Your task to perform on an android device: show emergency info Image 0: 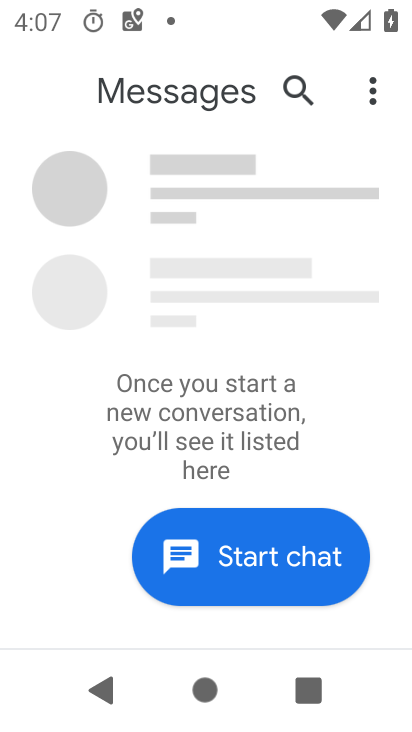
Step 0: press home button
Your task to perform on an android device: show emergency info Image 1: 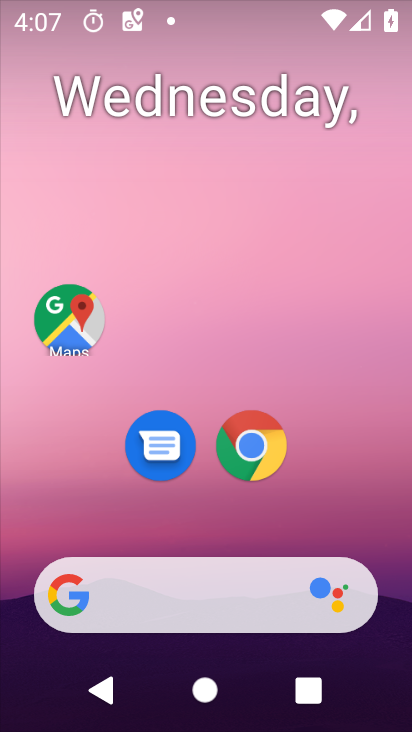
Step 1: drag from (226, 540) to (230, 115)
Your task to perform on an android device: show emergency info Image 2: 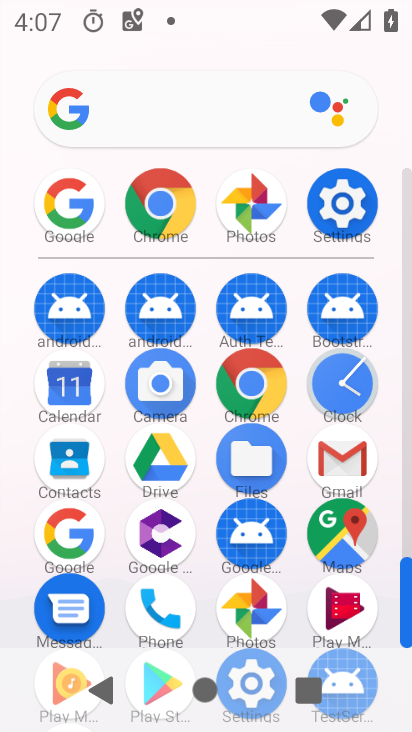
Step 2: click (347, 201)
Your task to perform on an android device: show emergency info Image 3: 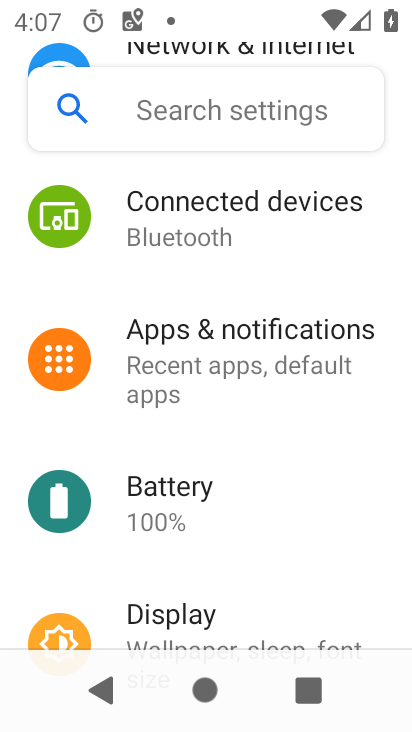
Step 3: drag from (237, 577) to (310, 129)
Your task to perform on an android device: show emergency info Image 4: 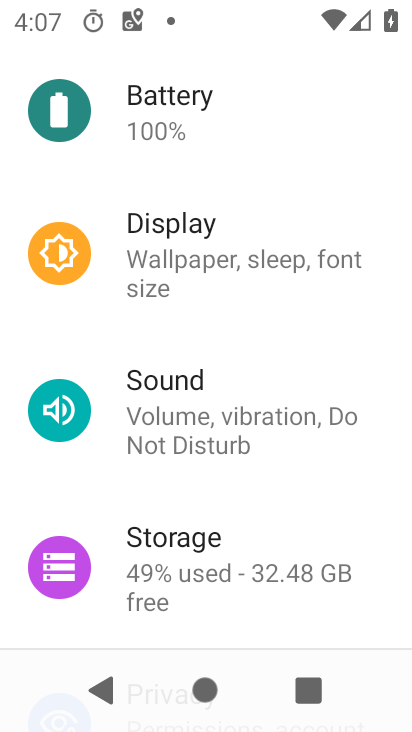
Step 4: drag from (197, 548) to (277, 41)
Your task to perform on an android device: show emergency info Image 5: 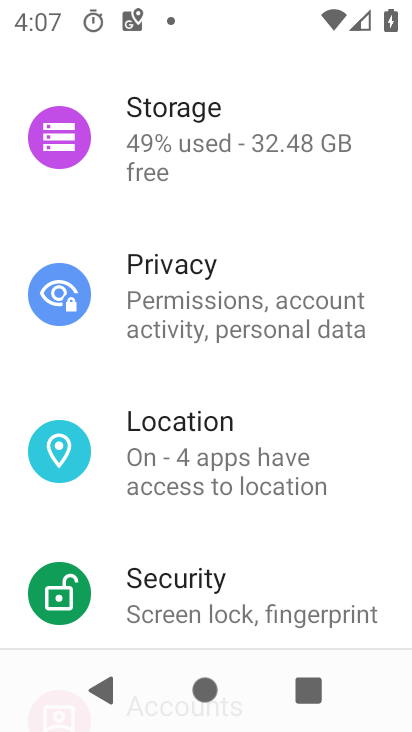
Step 5: drag from (204, 544) to (246, 69)
Your task to perform on an android device: show emergency info Image 6: 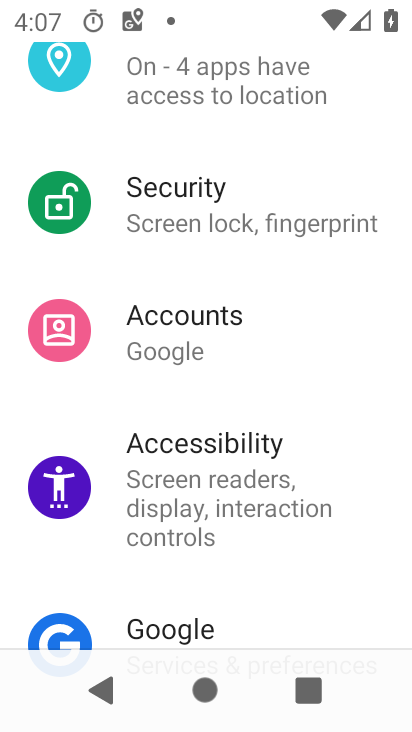
Step 6: drag from (219, 574) to (231, 131)
Your task to perform on an android device: show emergency info Image 7: 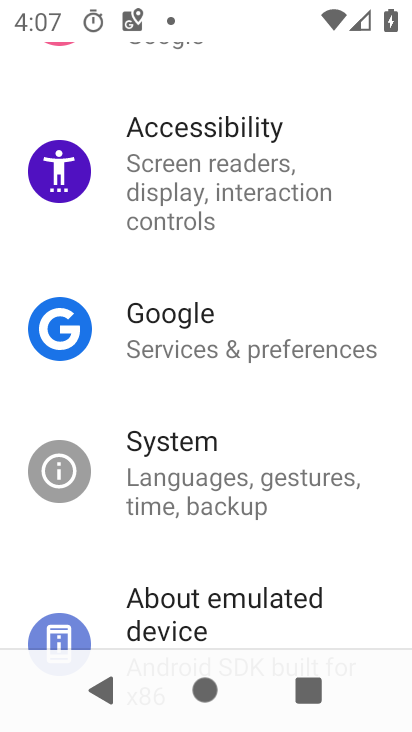
Step 7: drag from (172, 578) to (203, 256)
Your task to perform on an android device: show emergency info Image 8: 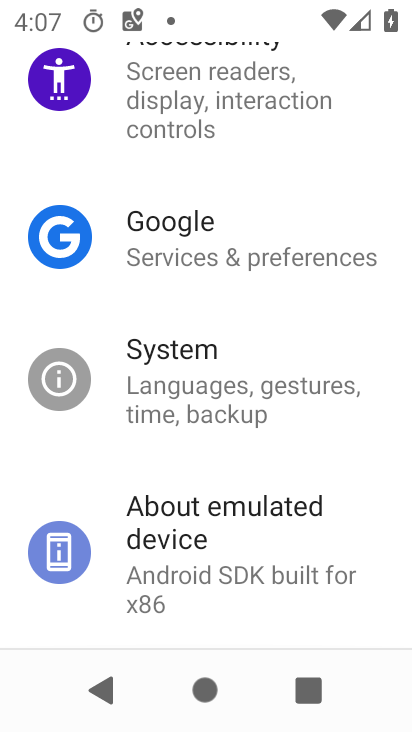
Step 8: click (181, 546)
Your task to perform on an android device: show emergency info Image 9: 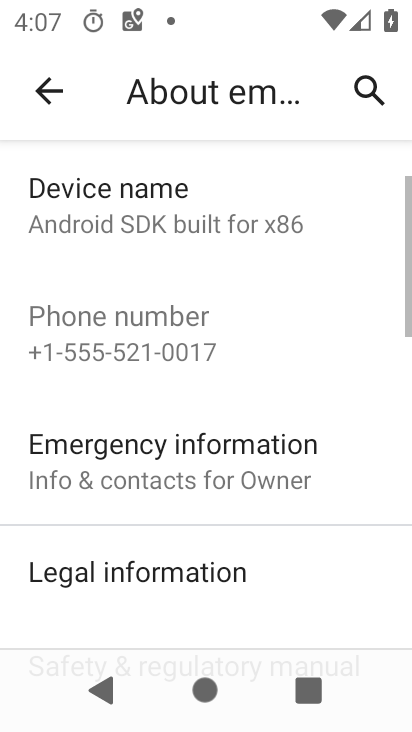
Step 9: drag from (224, 497) to (229, 392)
Your task to perform on an android device: show emergency info Image 10: 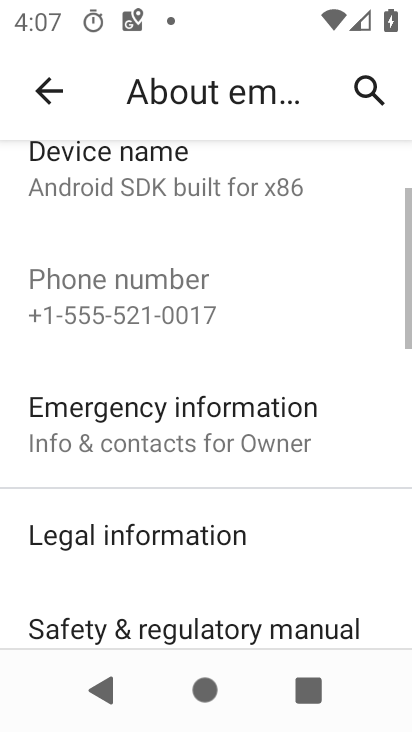
Step 10: click (227, 433)
Your task to perform on an android device: show emergency info Image 11: 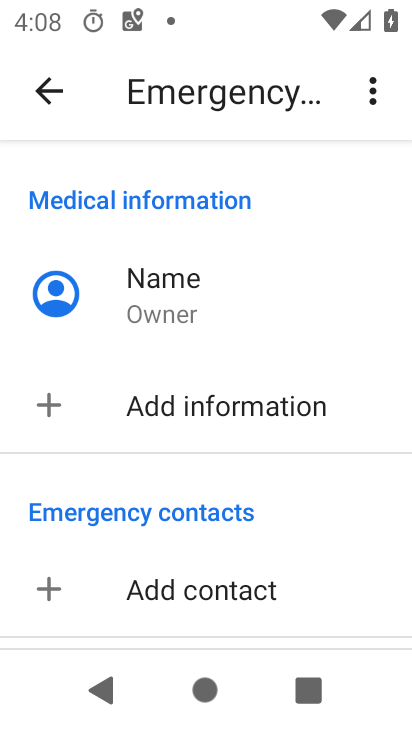
Step 11: task complete